Your task to perform on an android device: Open Youtube and go to the subscriptions tab Image 0: 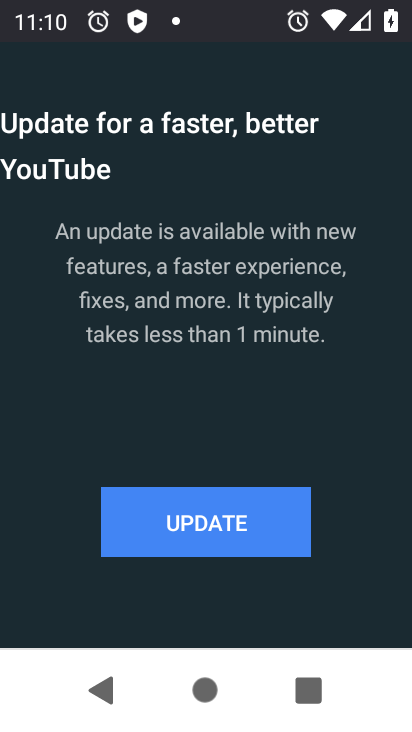
Step 0: drag from (341, 516) to (242, 143)
Your task to perform on an android device: Open Youtube and go to the subscriptions tab Image 1: 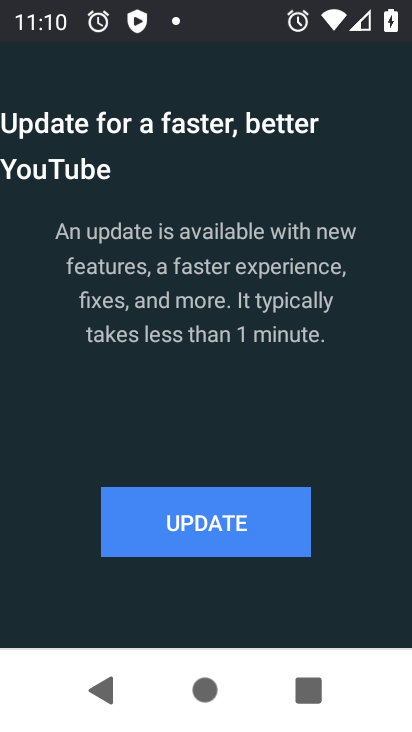
Step 1: press back button
Your task to perform on an android device: Open Youtube and go to the subscriptions tab Image 2: 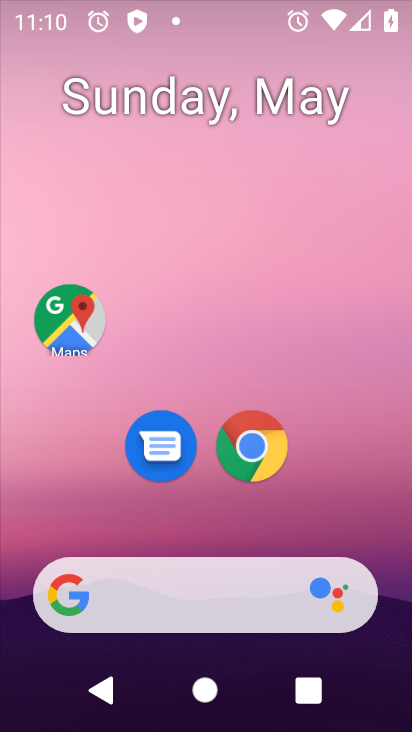
Step 2: drag from (387, 554) to (238, 87)
Your task to perform on an android device: Open Youtube and go to the subscriptions tab Image 3: 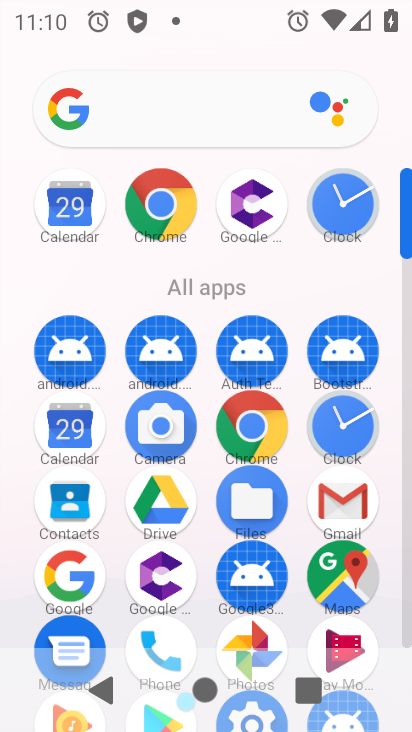
Step 3: drag from (18, 588) to (25, 227)
Your task to perform on an android device: Open Youtube and go to the subscriptions tab Image 4: 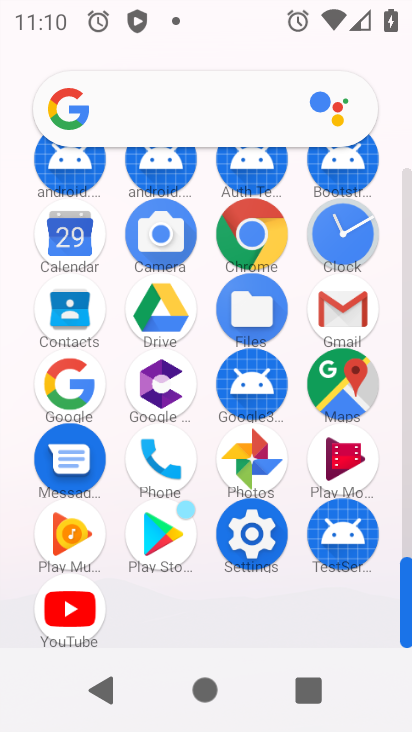
Step 4: click (70, 602)
Your task to perform on an android device: Open Youtube and go to the subscriptions tab Image 5: 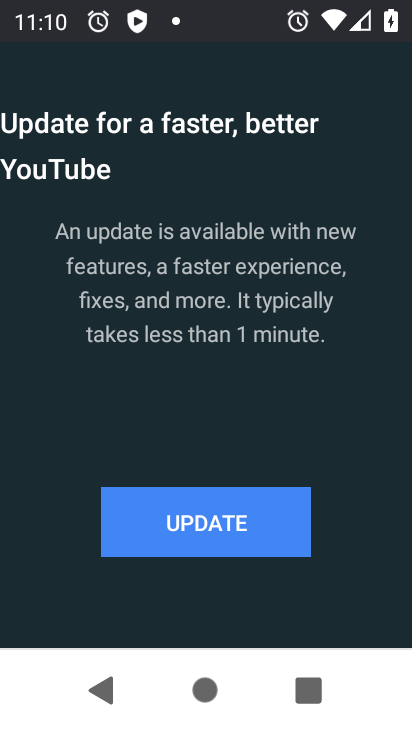
Step 5: click (221, 520)
Your task to perform on an android device: Open Youtube and go to the subscriptions tab Image 6: 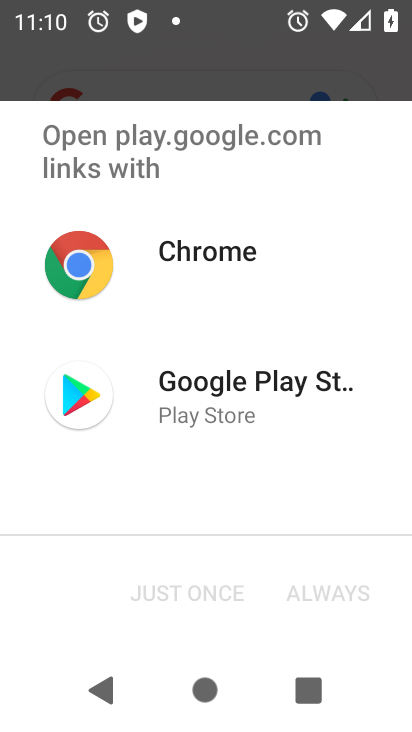
Step 6: click (237, 394)
Your task to perform on an android device: Open Youtube and go to the subscriptions tab Image 7: 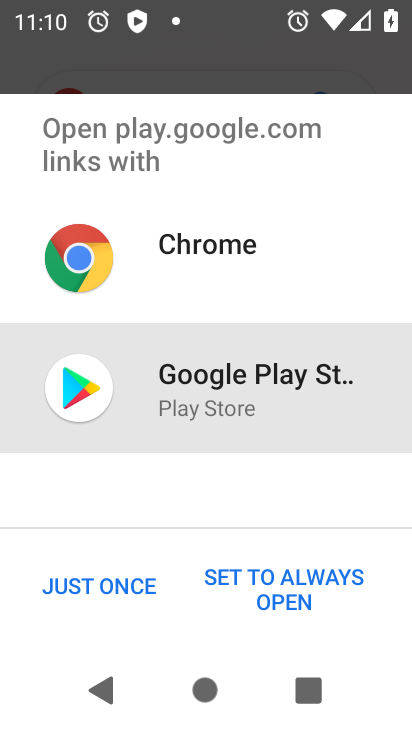
Step 7: click (101, 595)
Your task to perform on an android device: Open Youtube and go to the subscriptions tab Image 8: 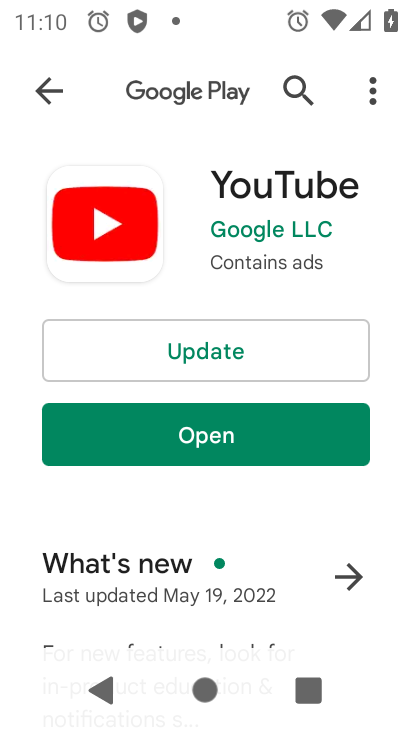
Step 8: click (195, 350)
Your task to perform on an android device: Open Youtube and go to the subscriptions tab Image 9: 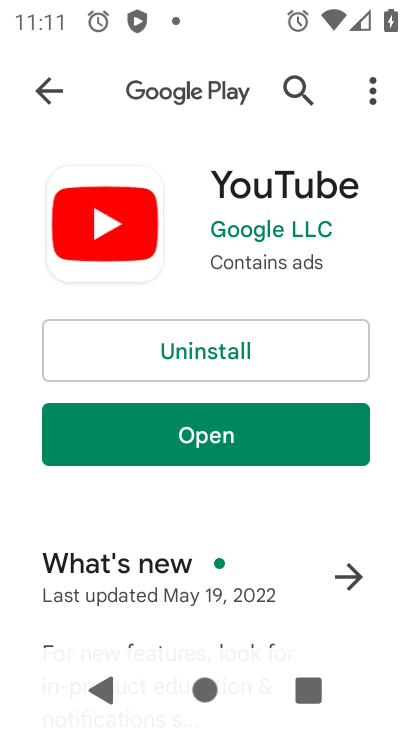
Step 9: click (223, 448)
Your task to perform on an android device: Open Youtube and go to the subscriptions tab Image 10: 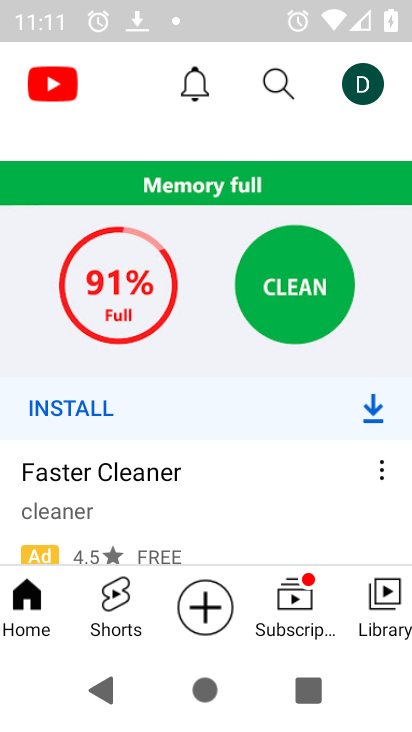
Step 10: click (300, 595)
Your task to perform on an android device: Open Youtube and go to the subscriptions tab Image 11: 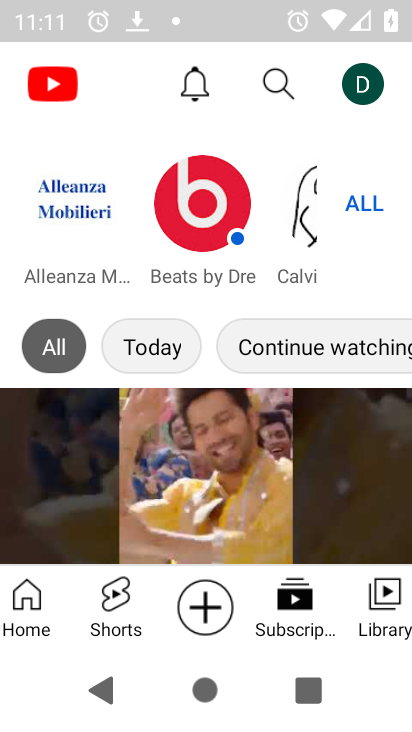
Step 11: task complete